Your task to perform on an android device: Go to Wikipedia Image 0: 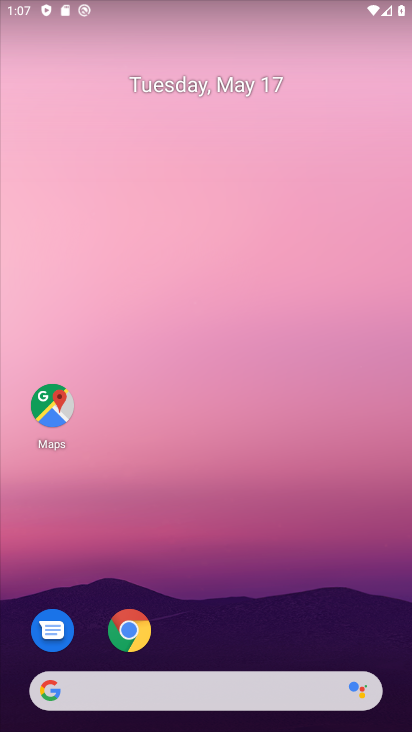
Step 0: click (126, 632)
Your task to perform on an android device: Go to Wikipedia Image 1: 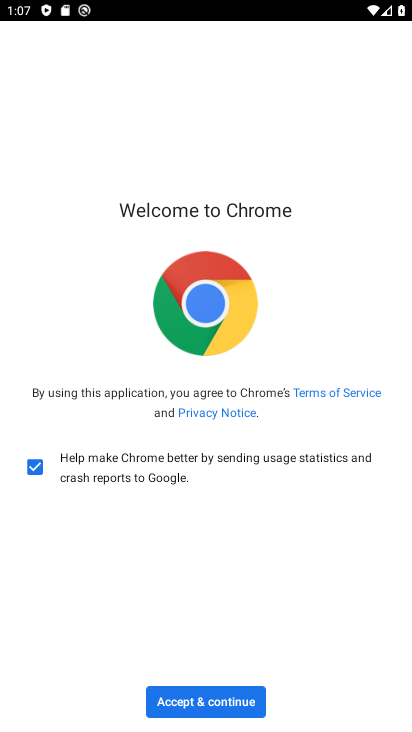
Step 1: click (207, 704)
Your task to perform on an android device: Go to Wikipedia Image 2: 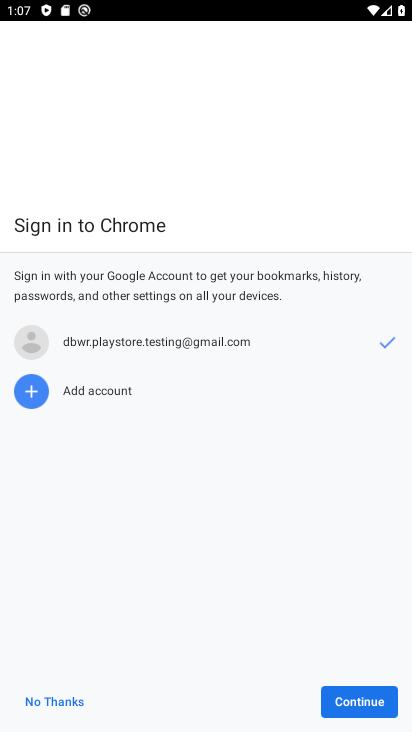
Step 2: click (357, 690)
Your task to perform on an android device: Go to Wikipedia Image 3: 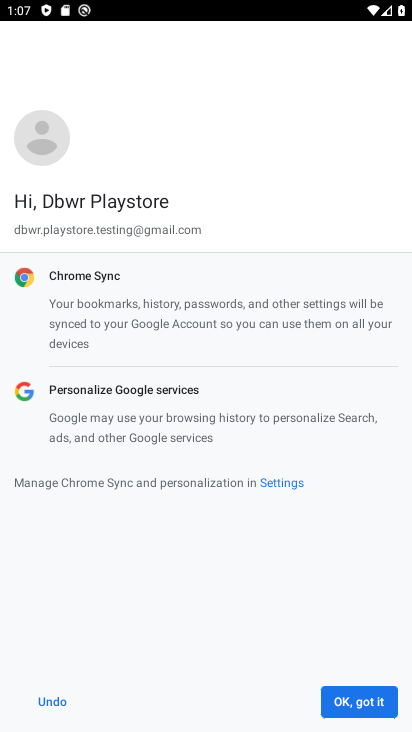
Step 3: click (350, 696)
Your task to perform on an android device: Go to Wikipedia Image 4: 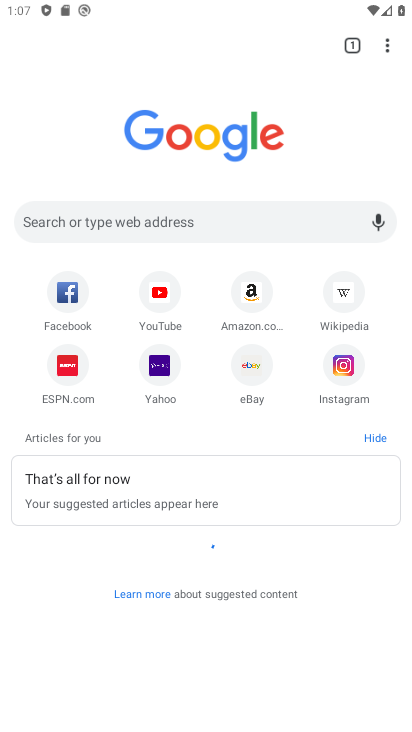
Step 4: click (330, 283)
Your task to perform on an android device: Go to Wikipedia Image 5: 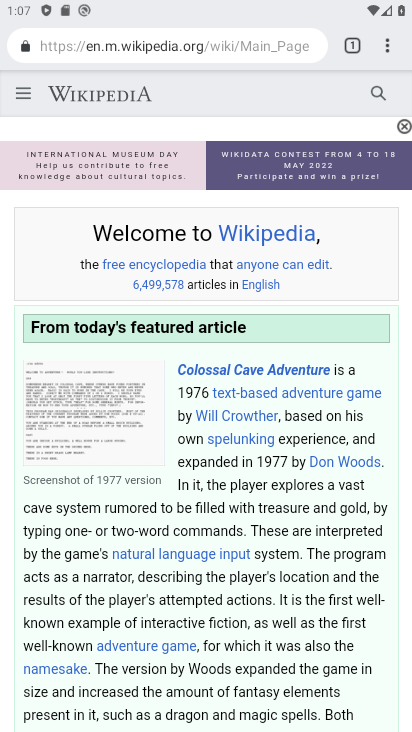
Step 5: task complete